Your task to perform on an android device: Open Yahoo.com Image 0: 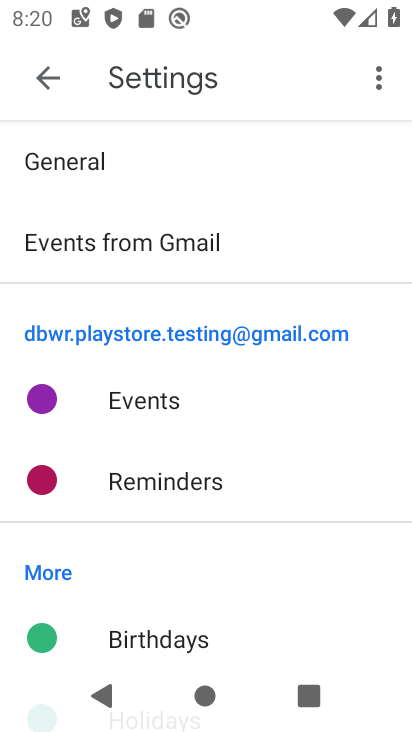
Step 0: press home button
Your task to perform on an android device: Open Yahoo.com Image 1: 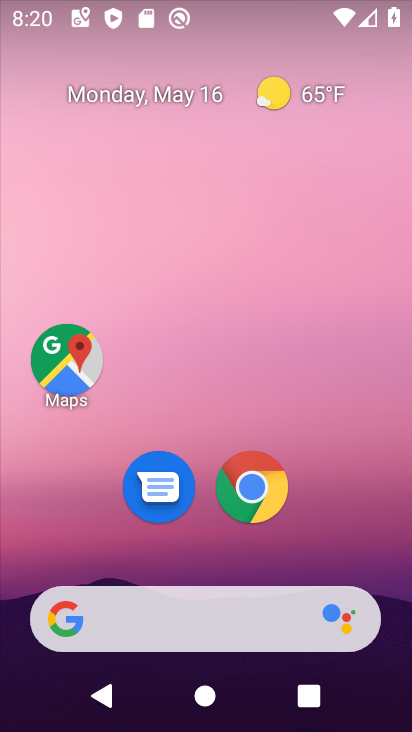
Step 1: drag from (368, 545) to (372, 124)
Your task to perform on an android device: Open Yahoo.com Image 2: 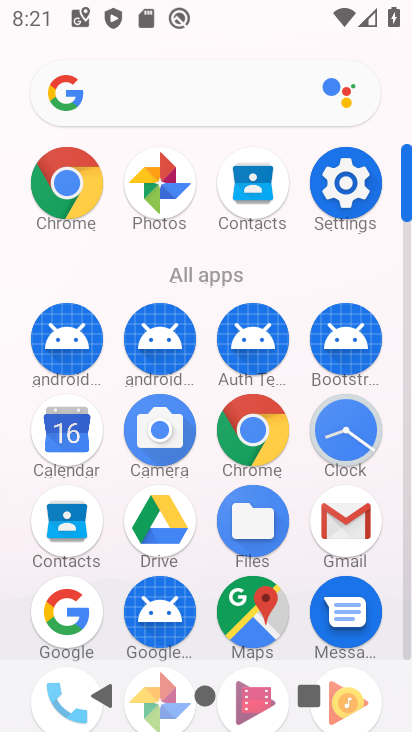
Step 2: click (71, 200)
Your task to perform on an android device: Open Yahoo.com Image 3: 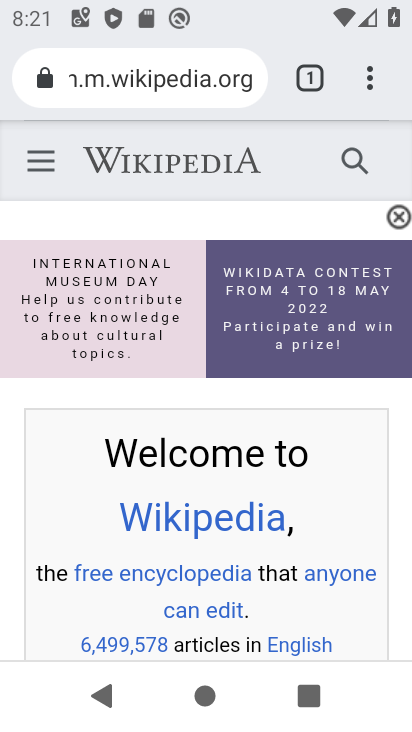
Step 3: press back button
Your task to perform on an android device: Open Yahoo.com Image 4: 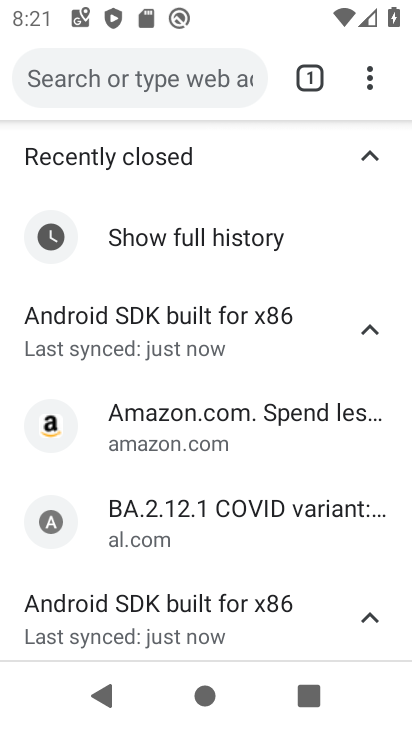
Step 4: press back button
Your task to perform on an android device: Open Yahoo.com Image 5: 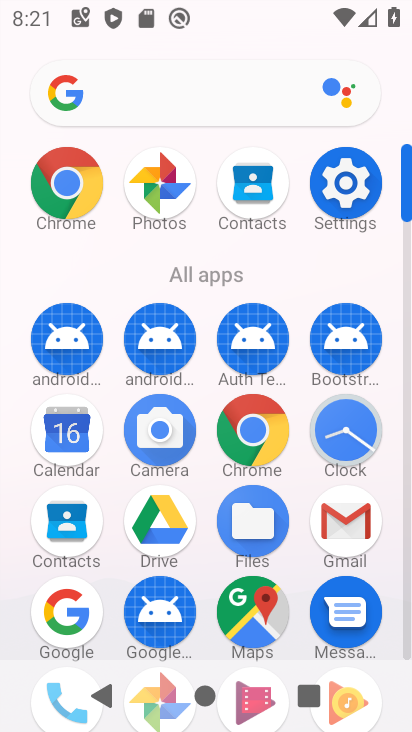
Step 5: click (277, 453)
Your task to perform on an android device: Open Yahoo.com Image 6: 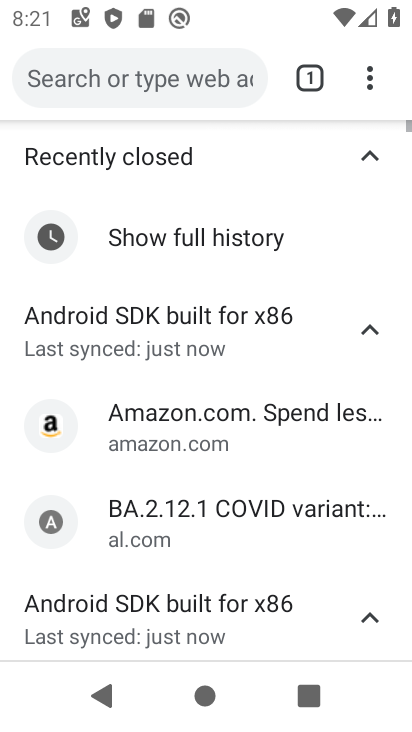
Step 6: click (223, 88)
Your task to perform on an android device: Open Yahoo.com Image 7: 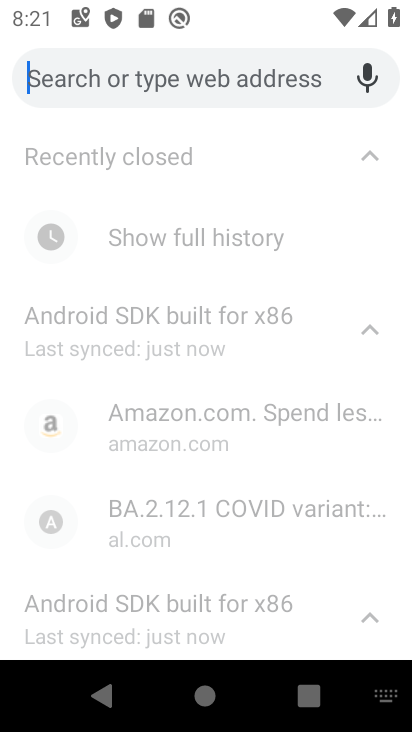
Step 7: type "yahoo.com"
Your task to perform on an android device: Open Yahoo.com Image 8: 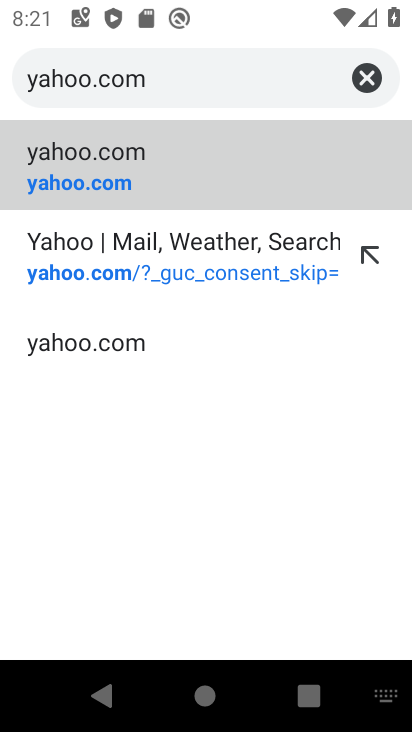
Step 8: click (82, 172)
Your task to perform on an android device: Open Yahoo.com Image 9: 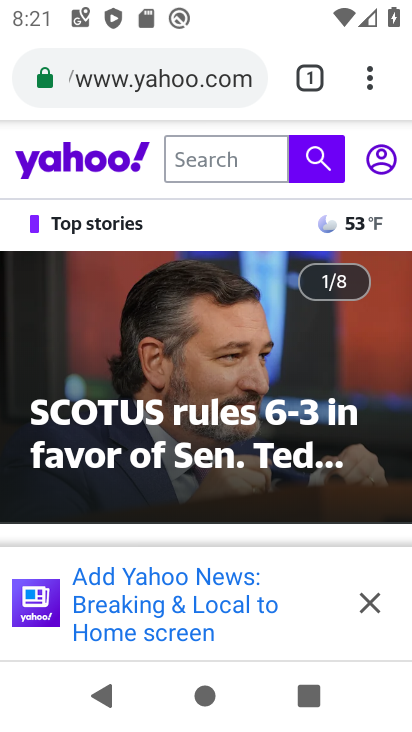
Step 9: task complete